Your task to perform on an android device: check storage Image 0: 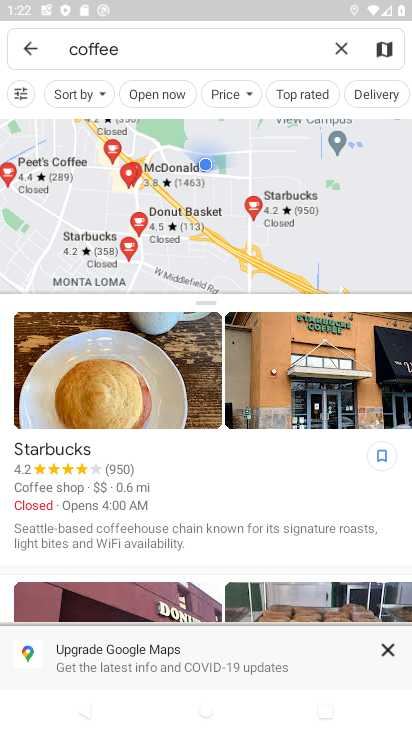
Step 0: press home button
Your task to perform on an android device: check storage Image 1: 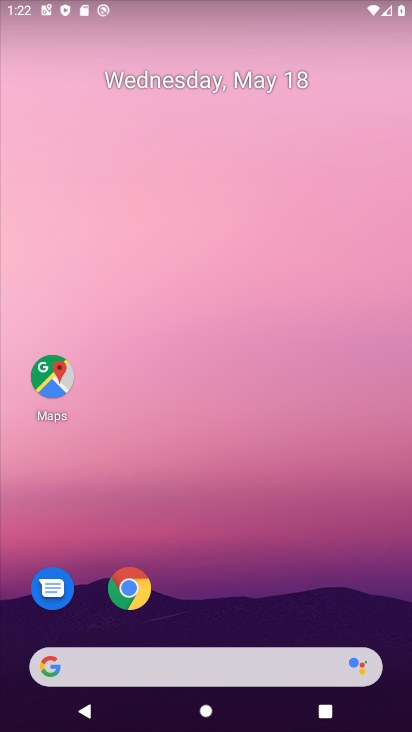
Step 1: drag from (320, 582) to (304, 123)
Your task to perform on an android device: check storage Image 2: 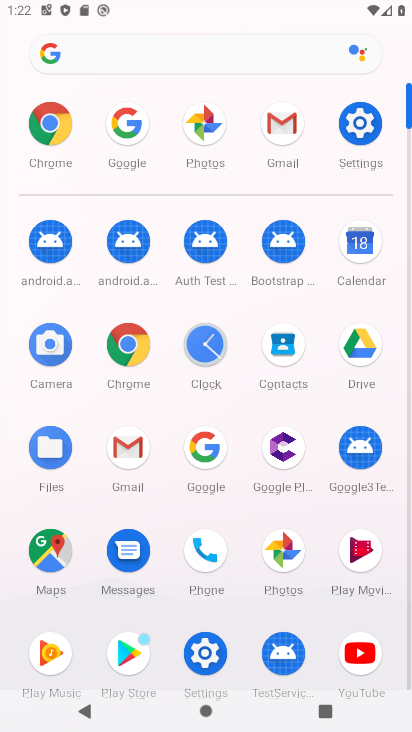
Step 2: click (364, 124)
Your task to perform on an android device: check storage Image 3: 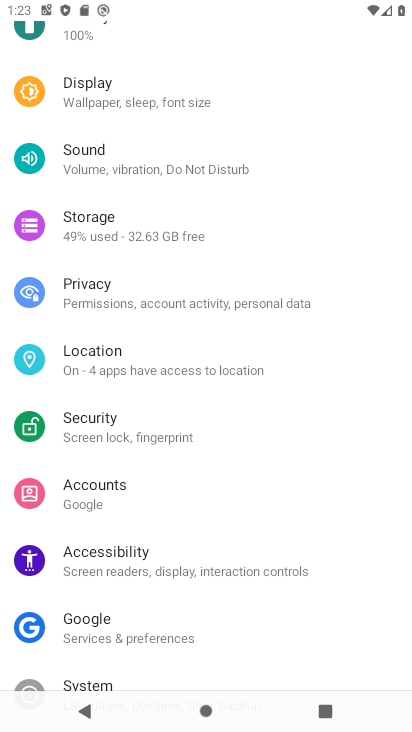
Step 3: drag from (341, 307) to (347, 529)
Your task to perform on an android device: check storage Image 4: 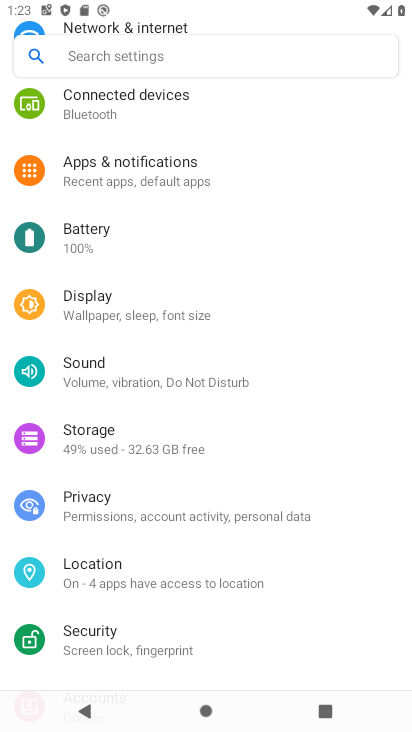
Step 4: drag from (352, 237) to (345, 457)
Your task to perform on an android device: check storage Image 5: 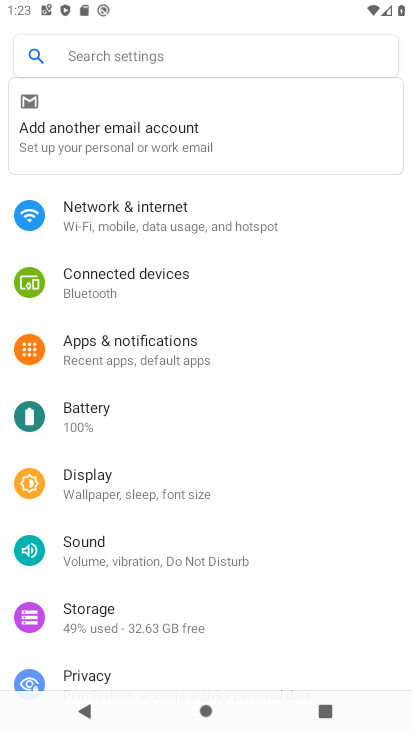
Step 5: drag from (344, 218) to (322, 406)
Your task to perform on an android device: check storage Image 6: 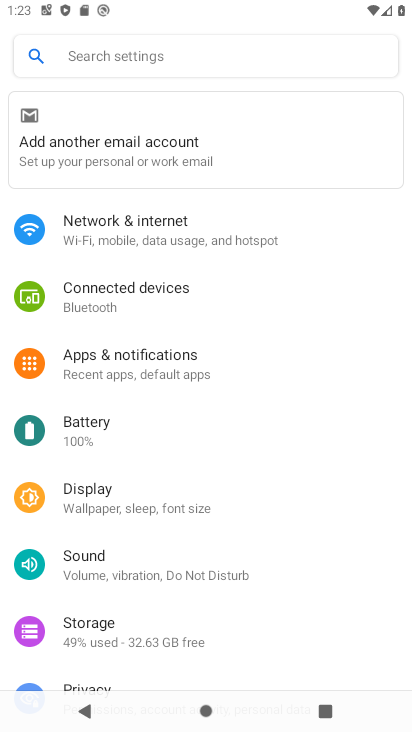
Step 6: drag from (313, 514) to (316, 365)
Your task to perform on an android device: check storage Image 7: 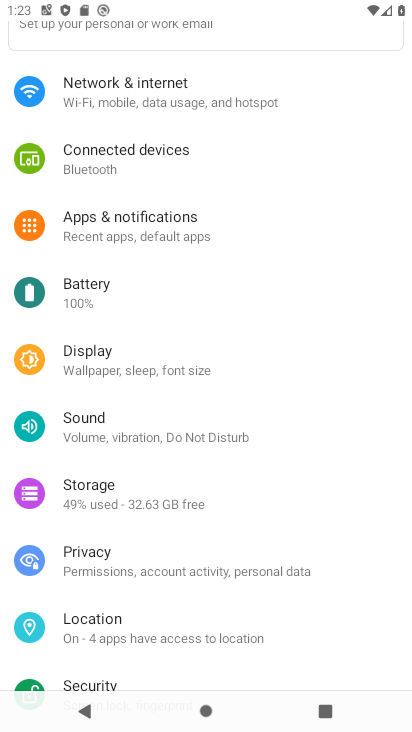
Step 7: drag from (327, 549) to (353, 343)
Your task to perform on an android device: check storage Image 8: 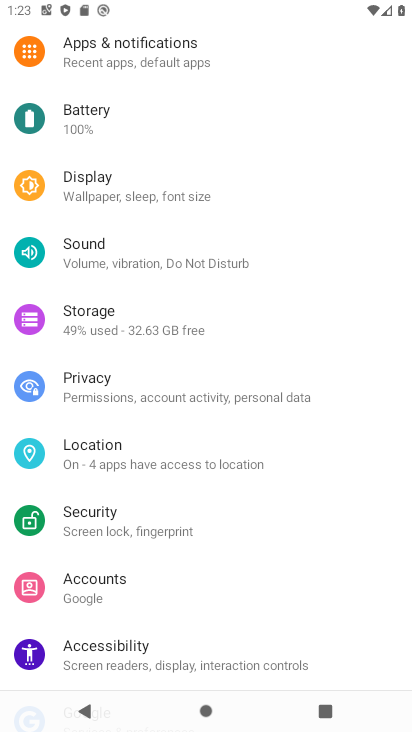
Step 8: drag from (360, 562) to (351, 360)
Your task to perform on an android device: check storage Image 9: 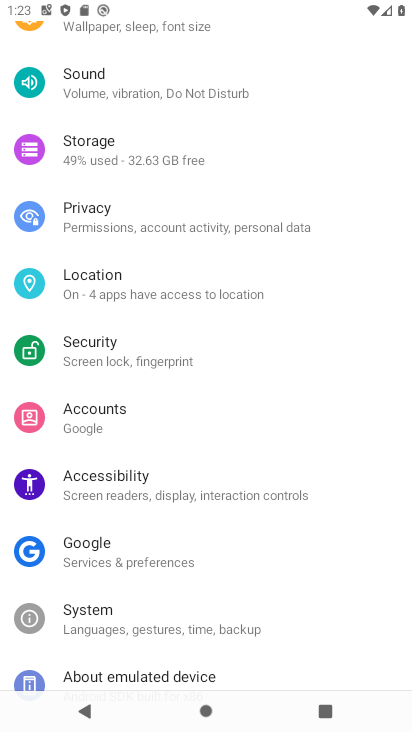
Step 9: drag from (319, 566) to (319, 310)
Your task to perform on an android device: check storage Image 10: 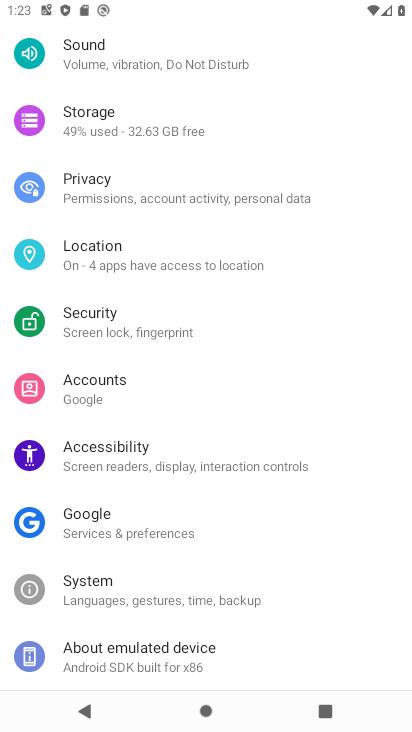
Step 10: drag from (305, 550) to (311, 326)
Your task to perform on an android device: check storage Image 11: 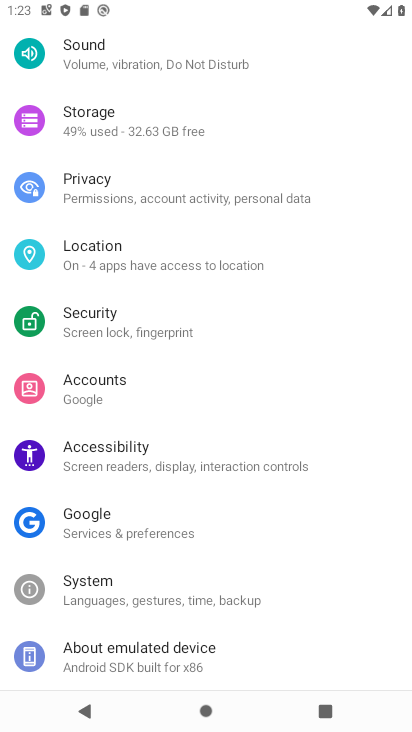
Step 11: drag from (323, 263) to (323, 487)
Your task to perform on an android device: check storage Image 12: 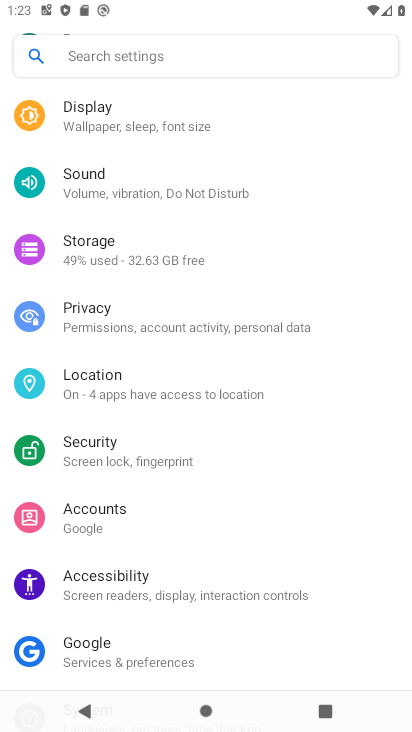
Step 12: click (137, 252)
Your task to perform on an android device: check storage Image 13: 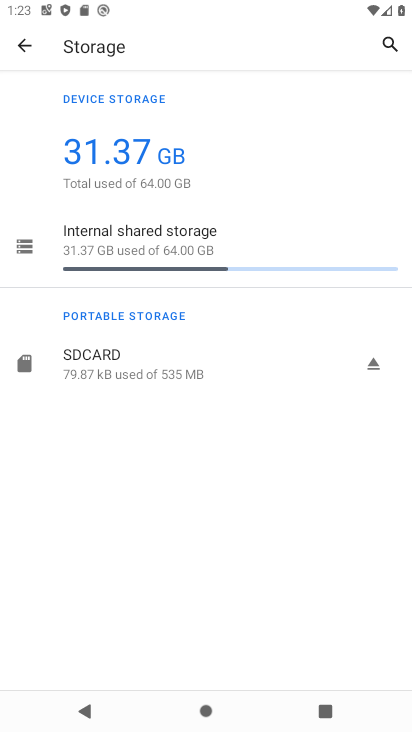
Step 13: task complete